Your task to perform on an android device: uninstall "HBO Max: Stream TV & Movies" Image 0: 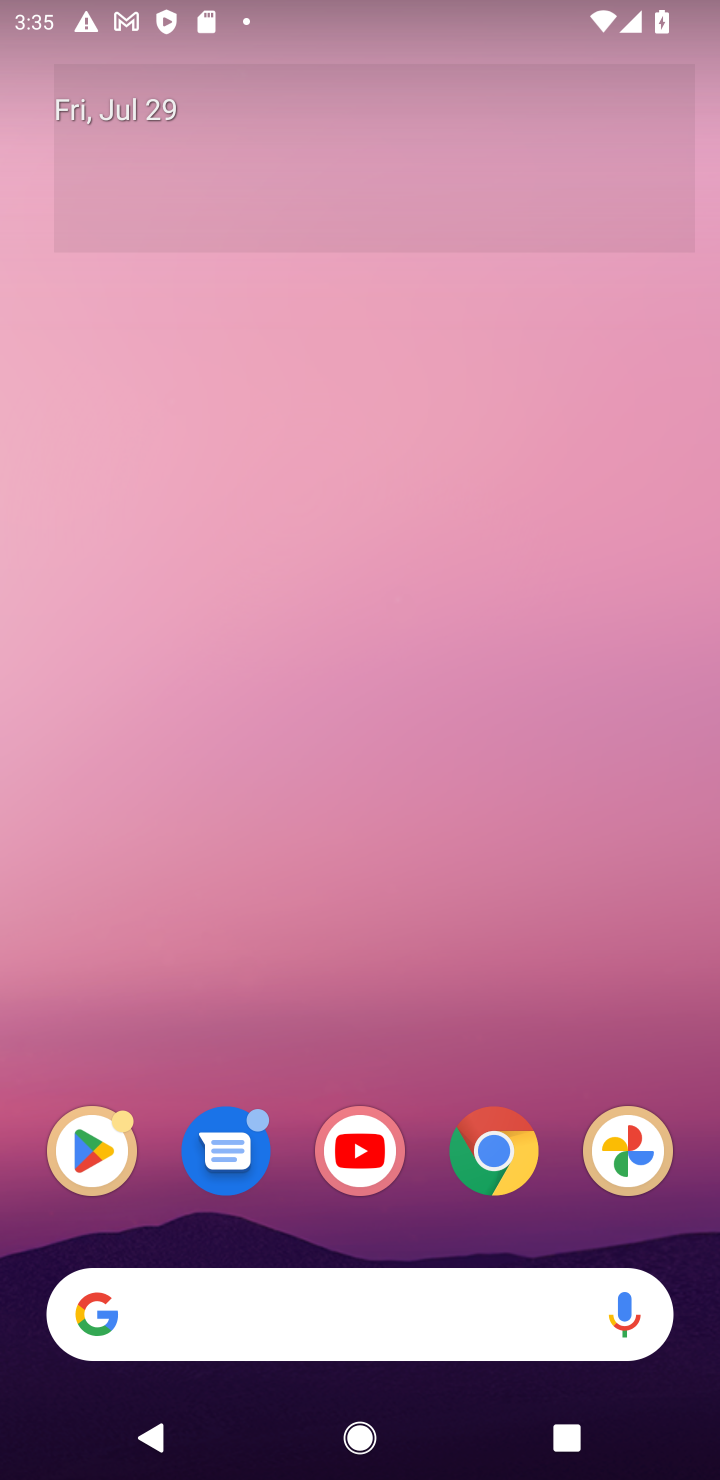
Step 0: press back button
Your task to perform on an android device: uninstall "HBO Max: Stream TV & Movies" Image 1: 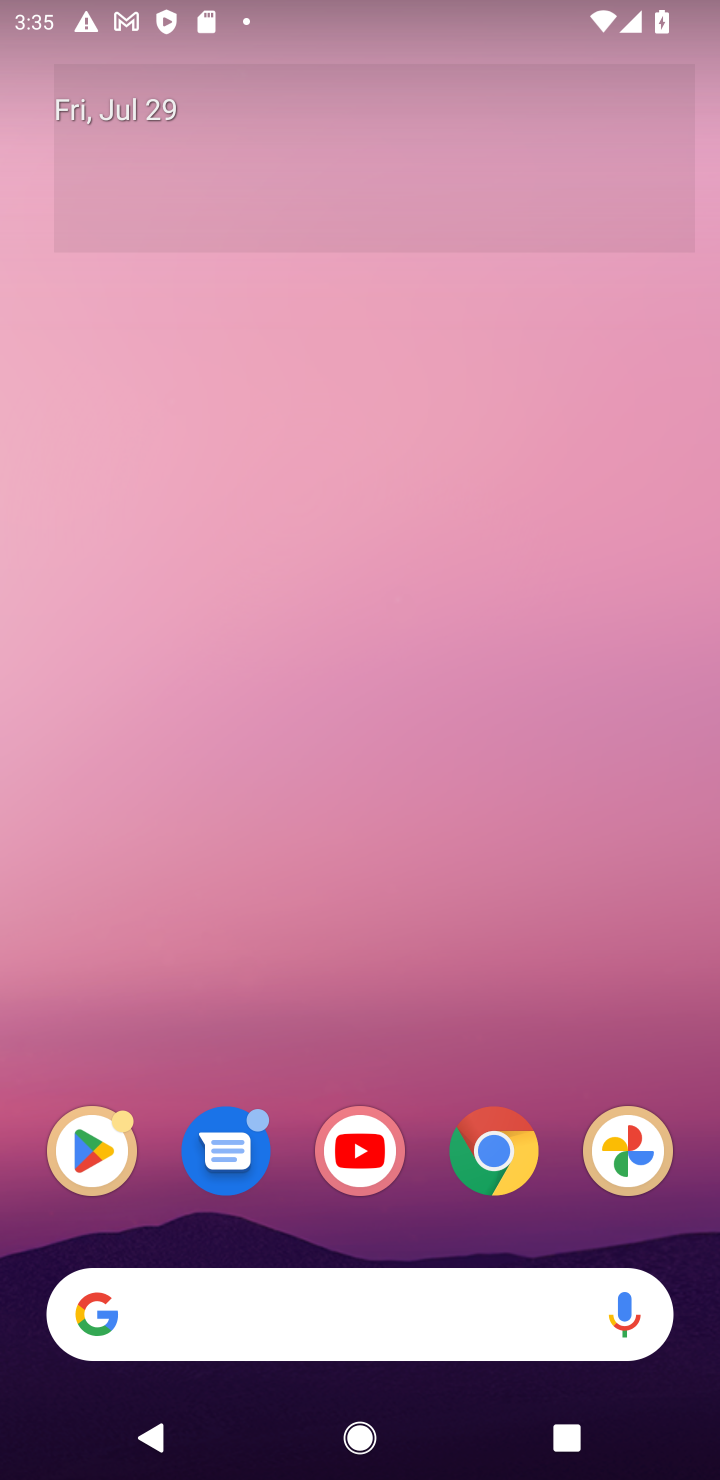
Step 1: click (87, 1164)
Your task to perform on an android device: uninstall "HBO Max: Stream TV & Movies" Image 2: 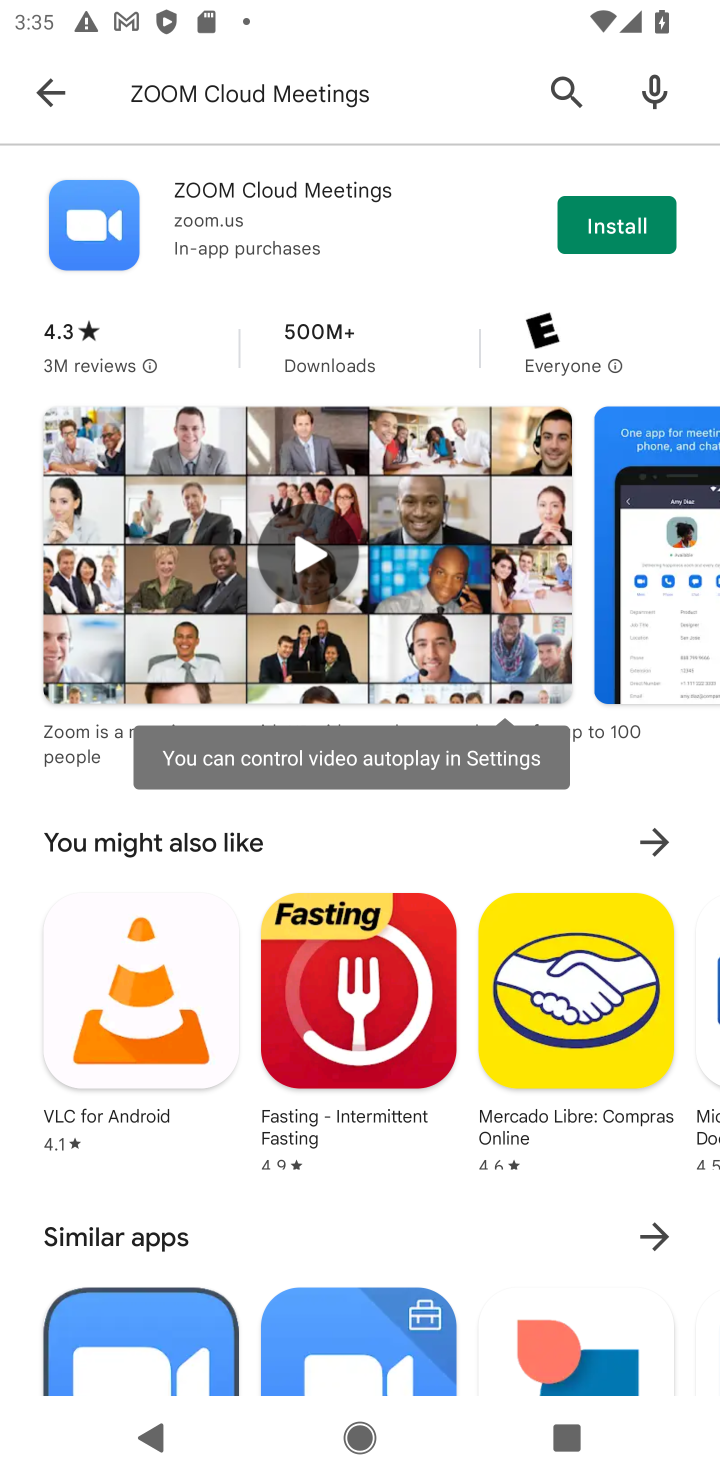
Step 2: click (579, 79)
Your task to perform on an android device: uninstall "HBO Max: Stream TV & Movies" Image 3: 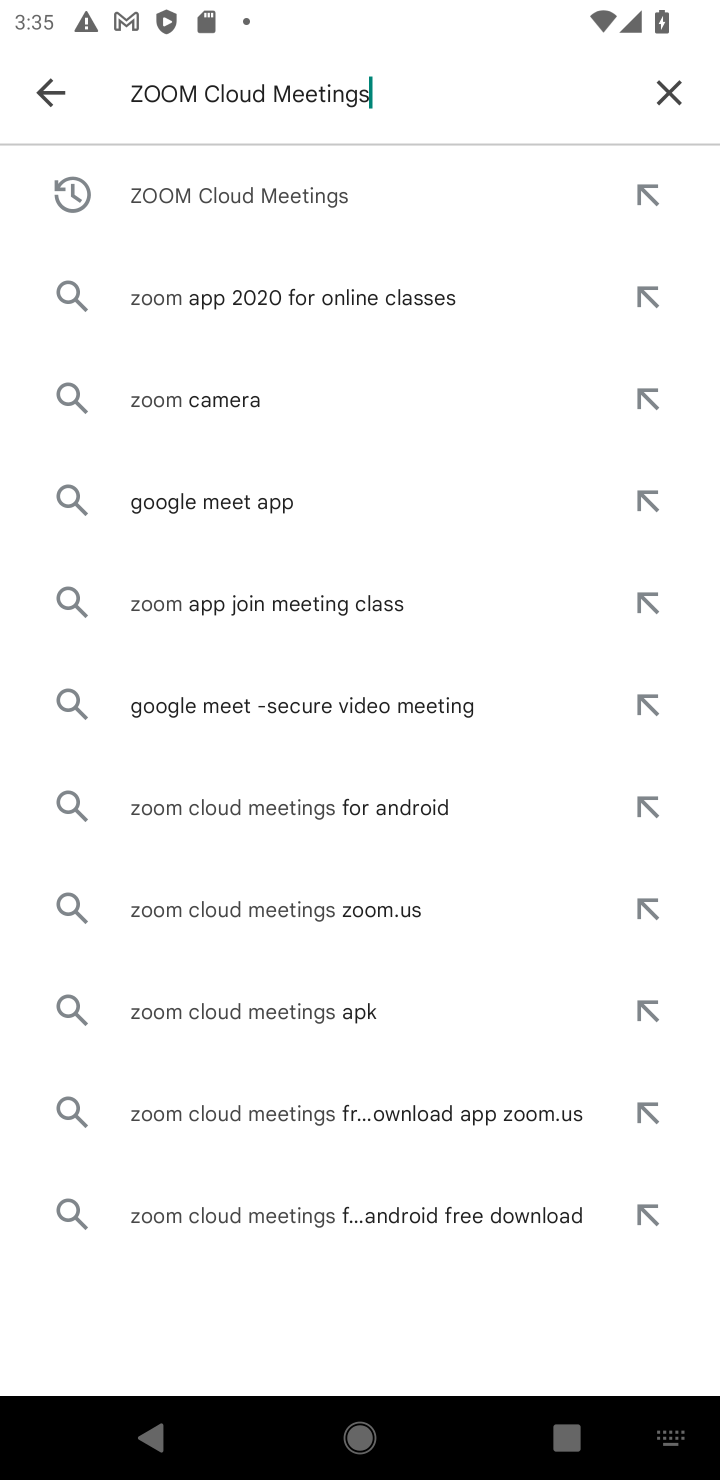
Step 3: click (677, 105)
Your task to perform on an android device: uninstall "HBO Max: Stream TV & Movies" Image 4: 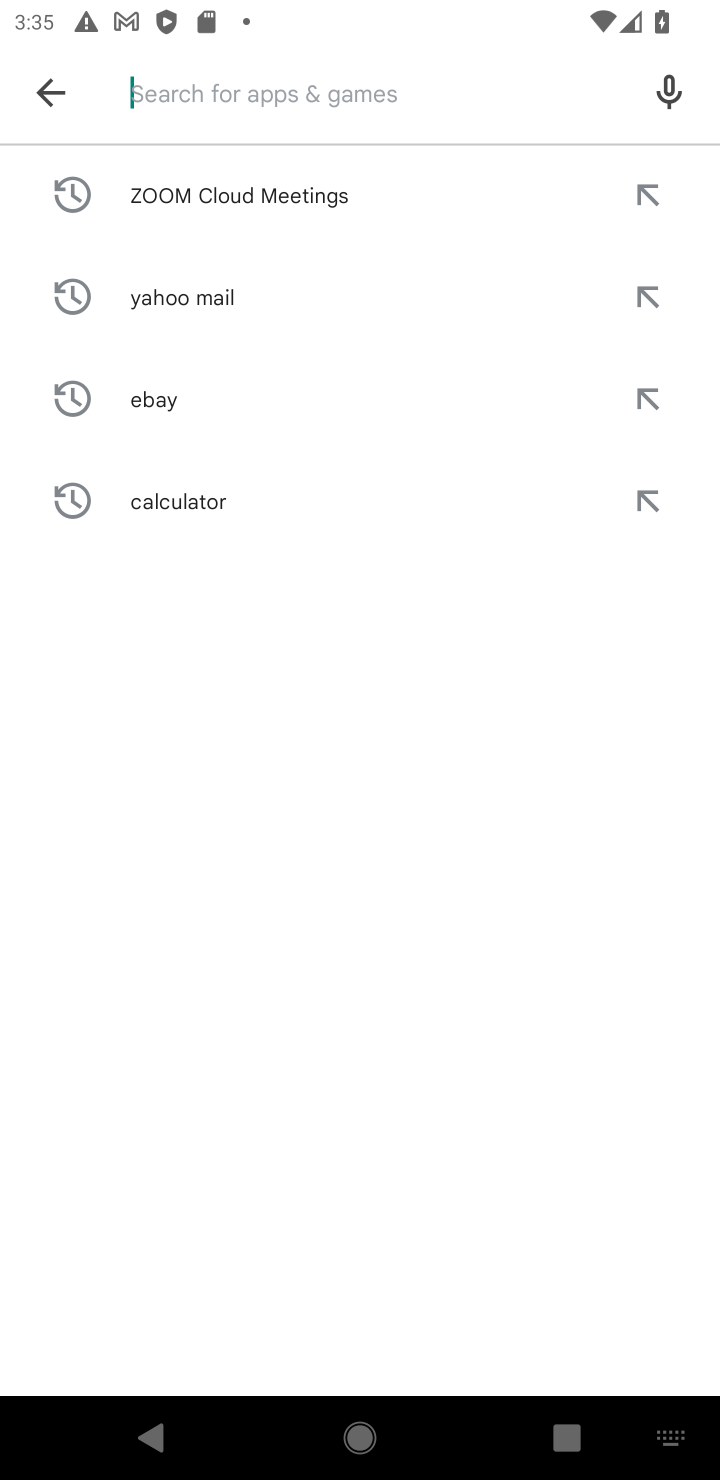
Step 4: type "HBO Max: Stream TV & Movies"
Your task to perform on an android device: uninstall "HBO Max: Stream TV & Movies" Image 5: 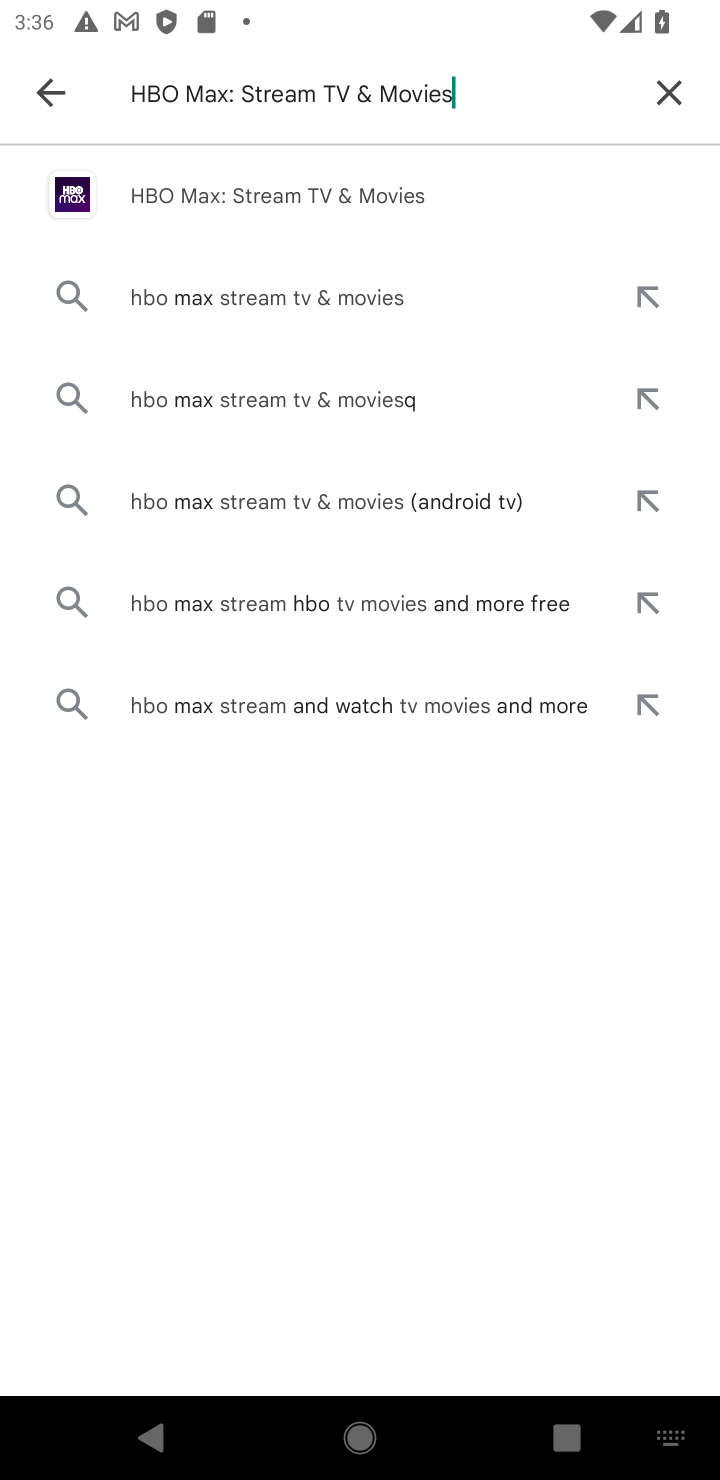
Step 5: click (386, 218)
Your task to perform on an android device: uninstall "HBO Max: Stream TV & Movies" Image 6: 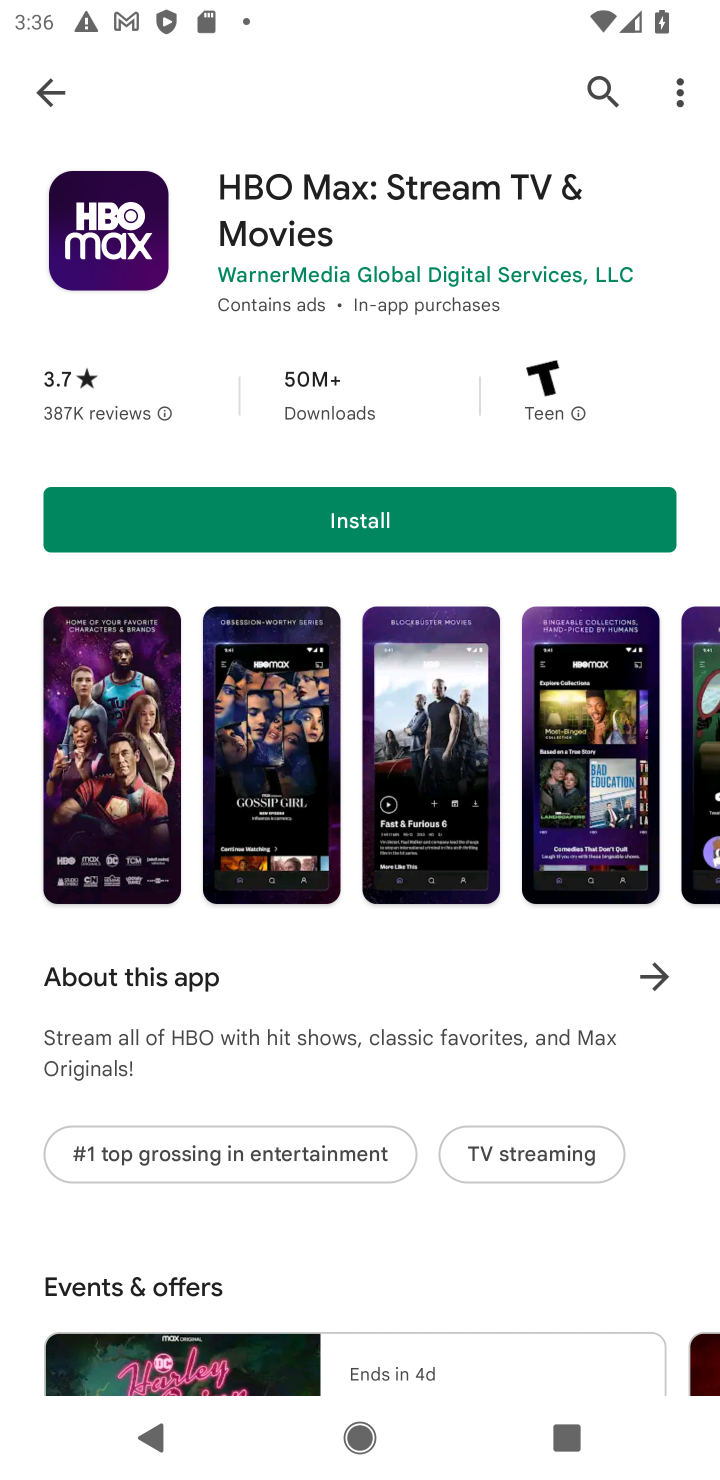
Step 6: task complete